Your task to perform on an android device: Go to wifi settings Image 0: 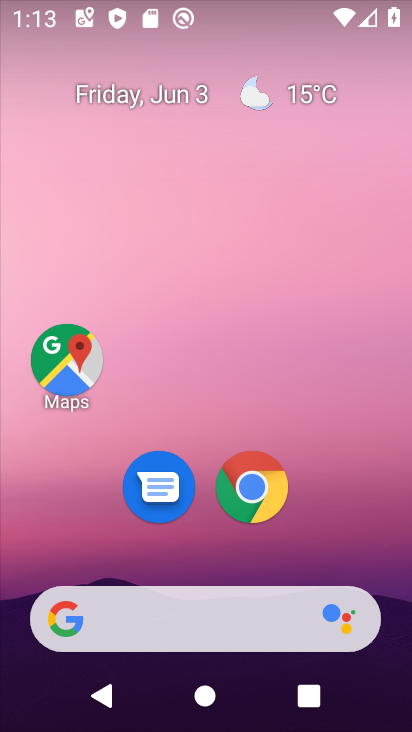
Step 0: drag from (204, 561) to (214, 8)
Your task to perform on an android device: Go to wifi settings Image 1: 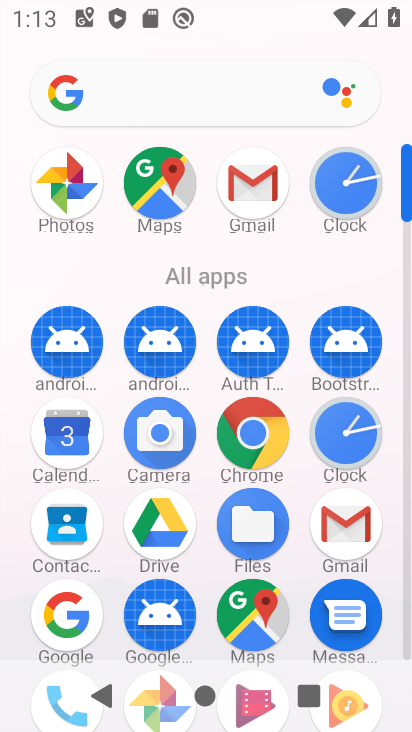
Step 1: drag from (206, 542) to (206, 138)
Your task to perform on an android device: Go to wifi settings Image 2: 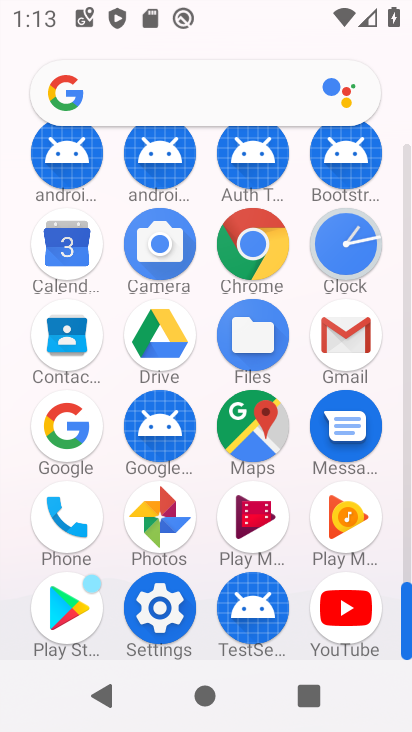
Step 2: click (156, 600)
Your task to perform on an android device: Go to wifi settings Image 3: 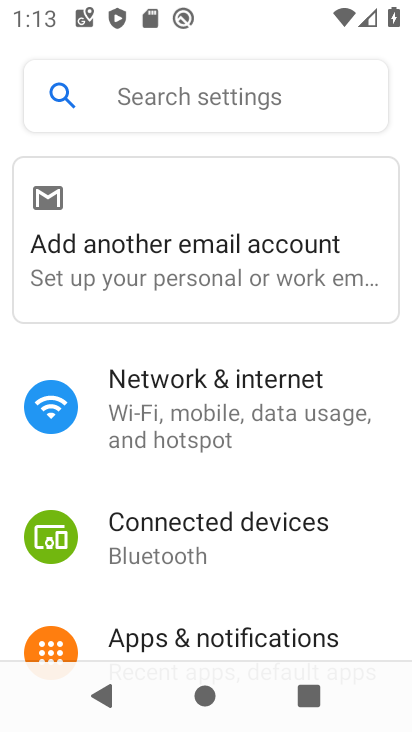
Step 3: click (95, 397)
Your task to perform on an android device: Go to wifi settings Image 4: 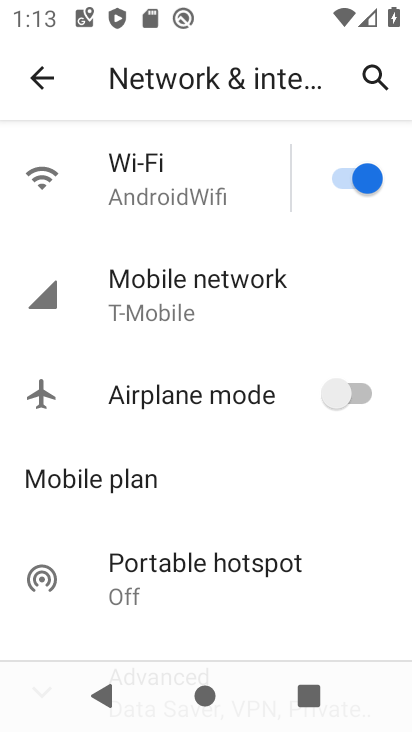
Step 4: click (230, 170)
Your task to perform on an android device: Go to wifi settings Image 5: 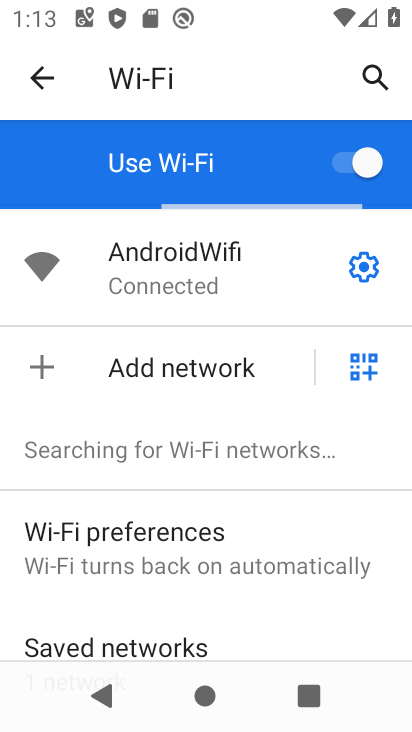
Step 5: task complete